Your task to perform on an android device: Empty the shopping cart on ebay. Search for "beats solo 3" on ebay, select the first entry, add it to the cart, then select checkout. Image 0: 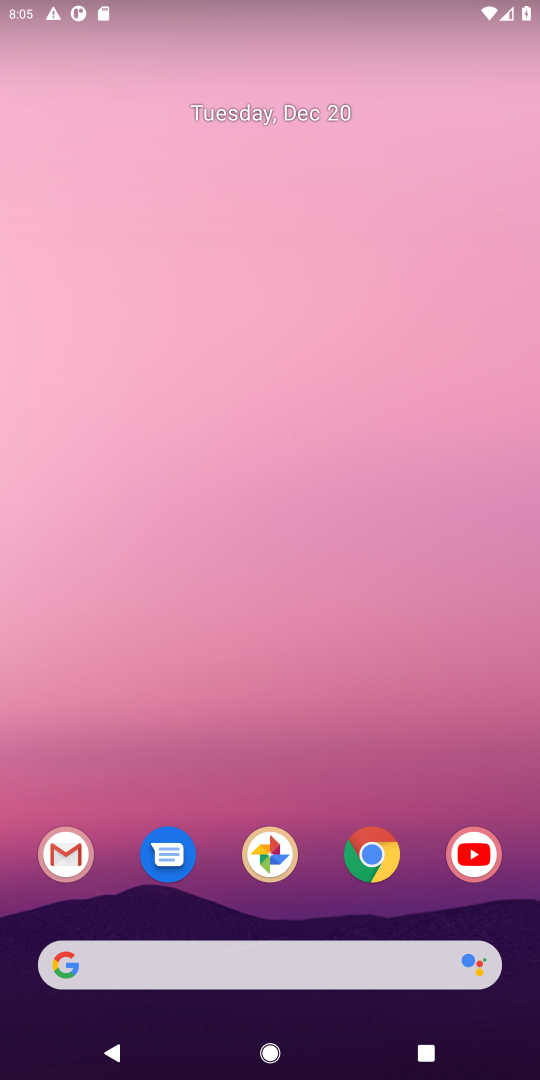
Step 0: click (381, 869)
Your task to perform on an android device: Empty the shopping cart on ebay. Search for "beats solo 3" on ebay, select the first entry, add it to the cart, then select checkout. Image 1: 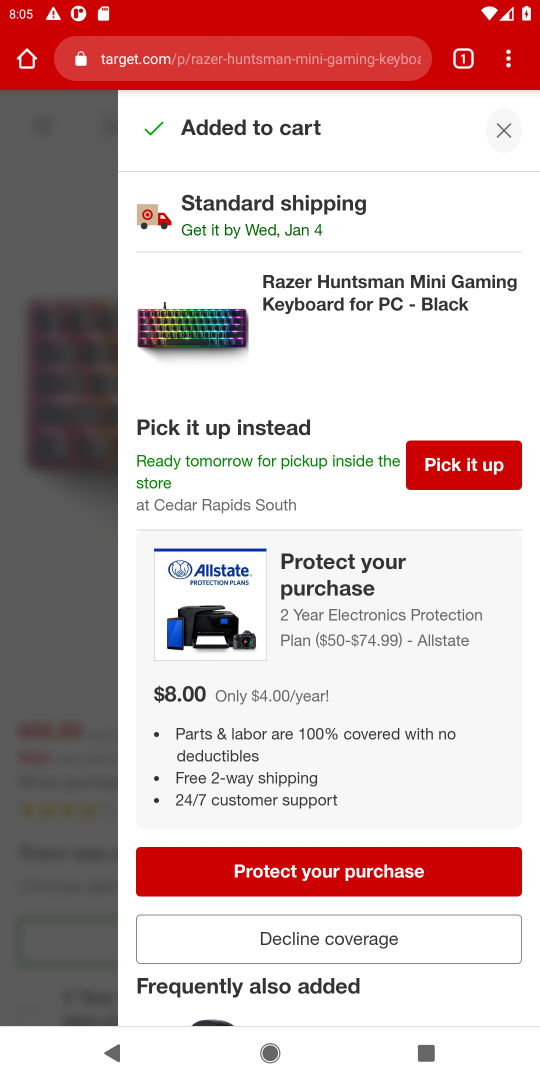
Step 1: click (189, 68)
Your task to perform on an android device: Empty the shopping cart on ebay. Search for "beats solo 3" on ebay, select the first entry, add it to the cart, then select checkout. Image 2: 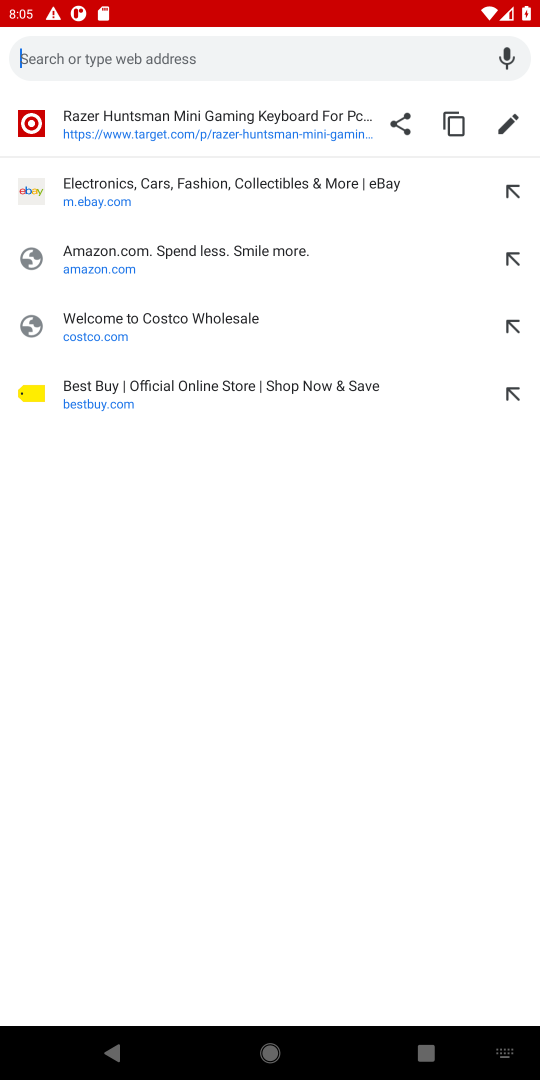
Step 2: click (88, 206)
Your task to perform on an android device: Empty the shopping cart on ebay. Search for "beats solo 3" on ebay, select the first entry, add it to the cart, then select checkout. Image 3: 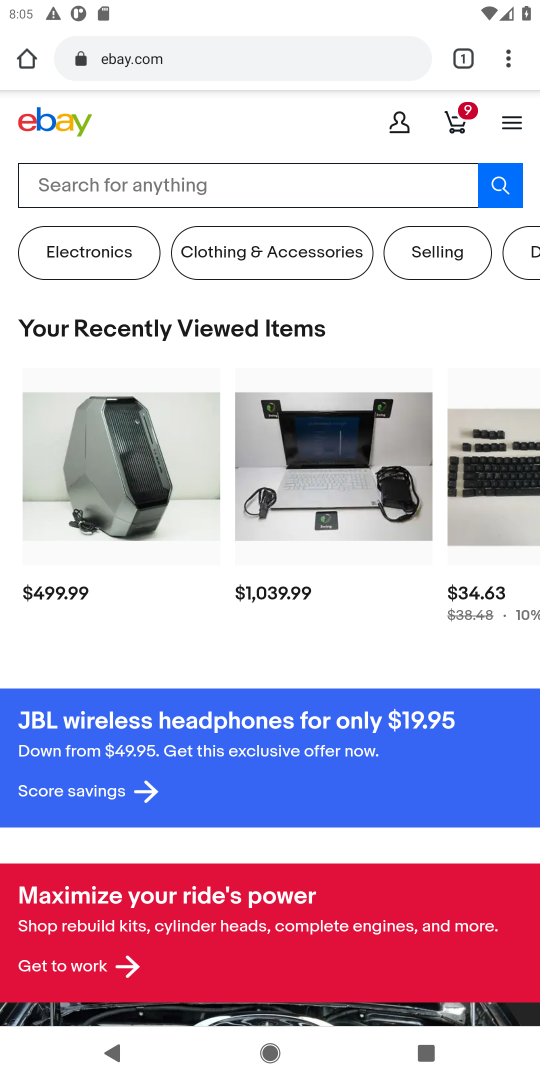
Step 3: click (459, 122)
Your task to perform on an android device: Empty the shopping cart on ebay. Search for "beats solo 3" on ebay, select the first entry, add it to the cart, then select checkout. Image 4: 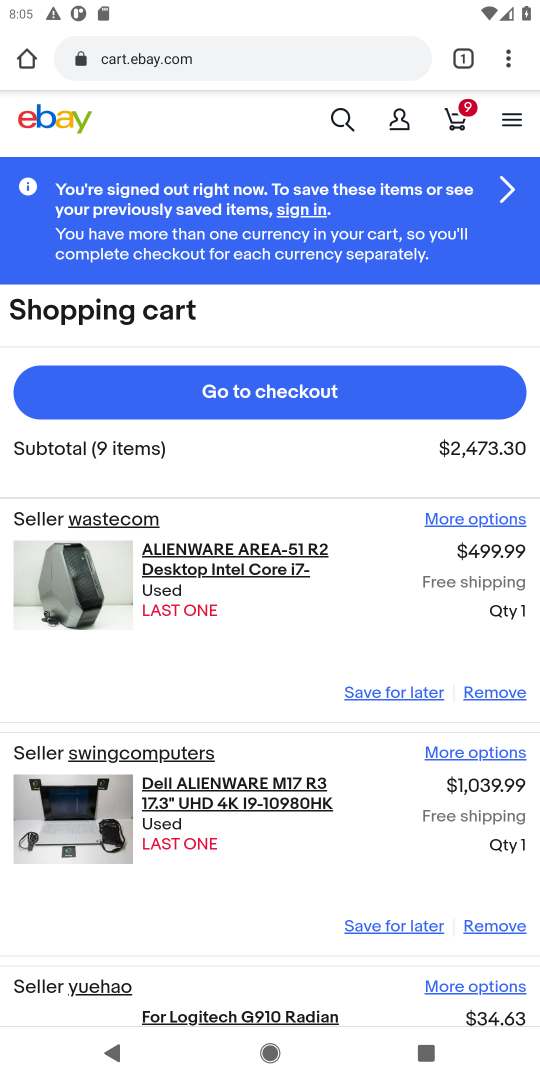
Step 4: click (482, 689)
Your task to perform on an android device: Empty the shopping cart on ebay. Search for "beats solo 3" on ebay, select the first entry, add it to the cart, then select checkout. Image 5: 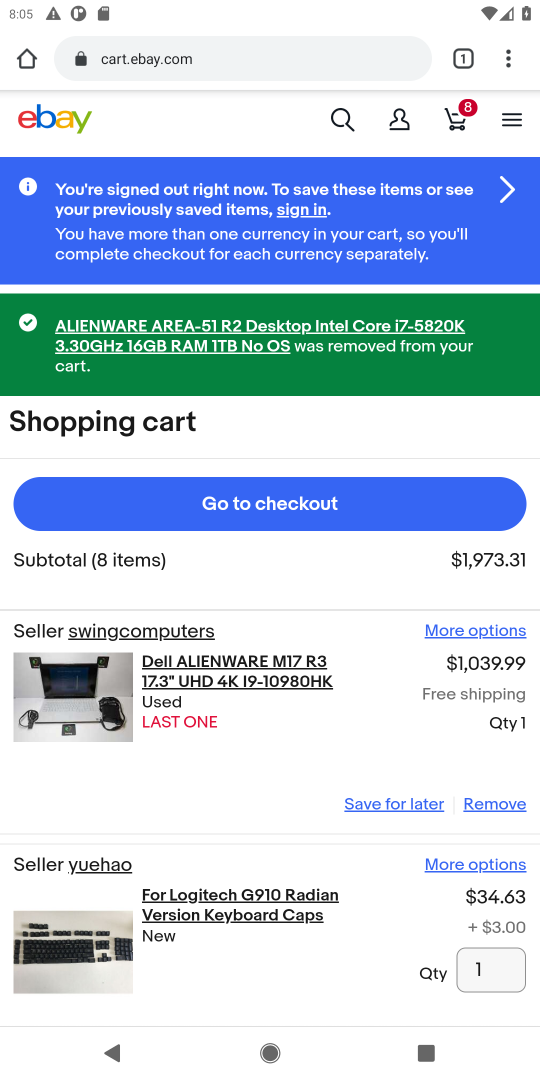
Step 5: click (489, 803)
Your task to perform on an android device: Empty the shopping cart on ebay. Search for "beats solo 3" on ebay, select the first entry, add it to the cart, then select checkout. Image 6: 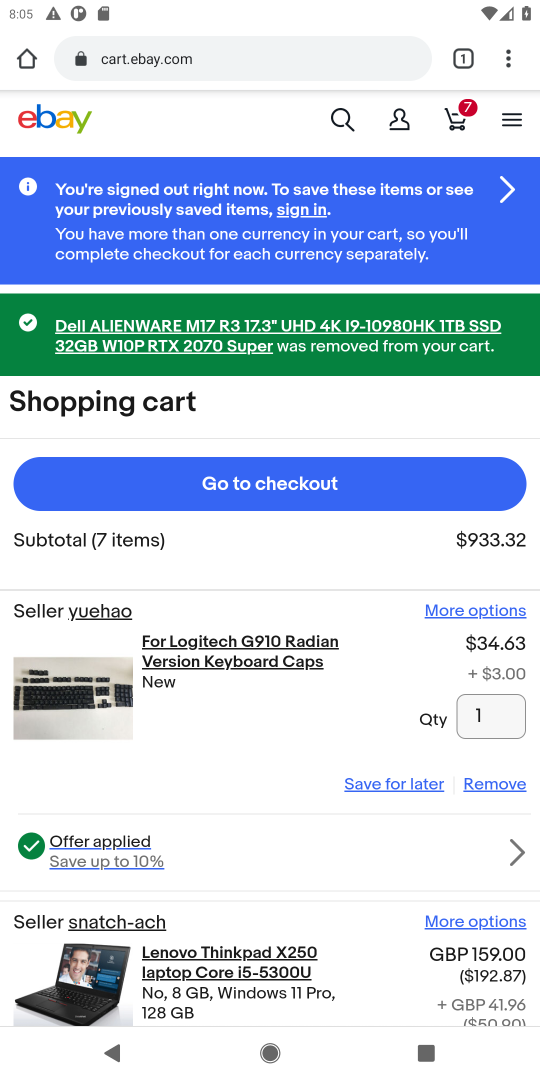
Step 6: click (491, 778)
Your task to perform on an android device: Empty the shopping cart on ebay. Search for "beats solo 3" on ebay, select the first entry, add it to the cart, then select checkout. Image 7: 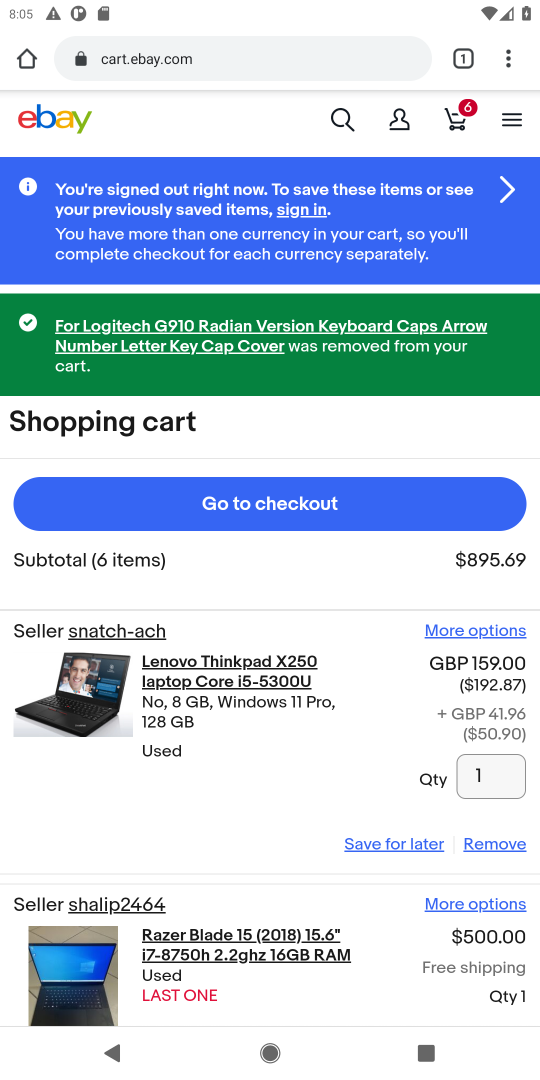
Step 7: click (487, 840)
Your task to perform on an android device: Empty the shopping cart on ebay. Search for "beats solo 3" on ebay, select the first entry, add it to the cart, then select checkout. Image 8: 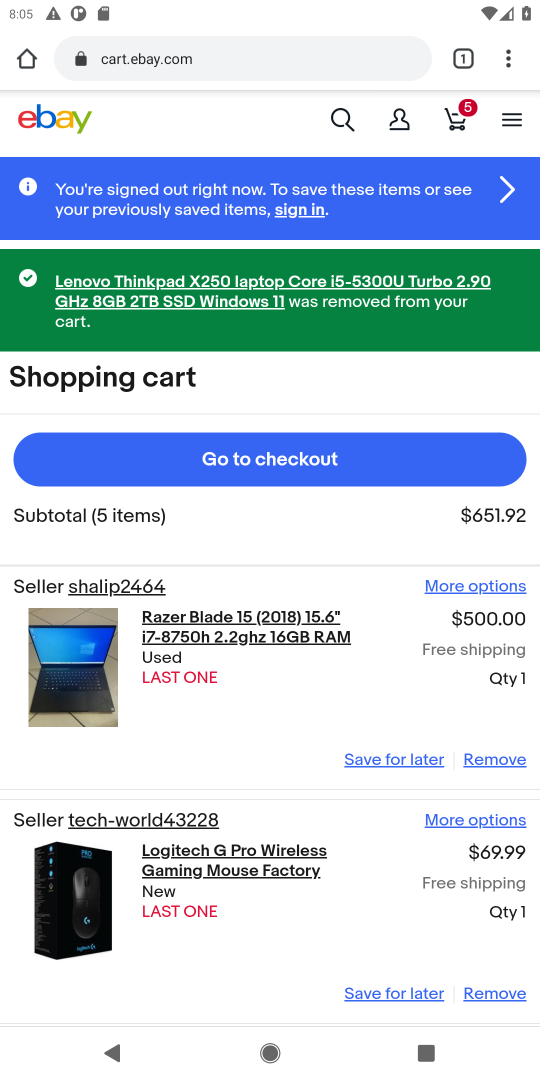
Step 8: click (491, 760)
Your task to perform on an android device: Empty the shopping cart on ebay. Search for "beats solo 3" on ebay, select the first entry, add it to the cart, then select checkout. Image 9: 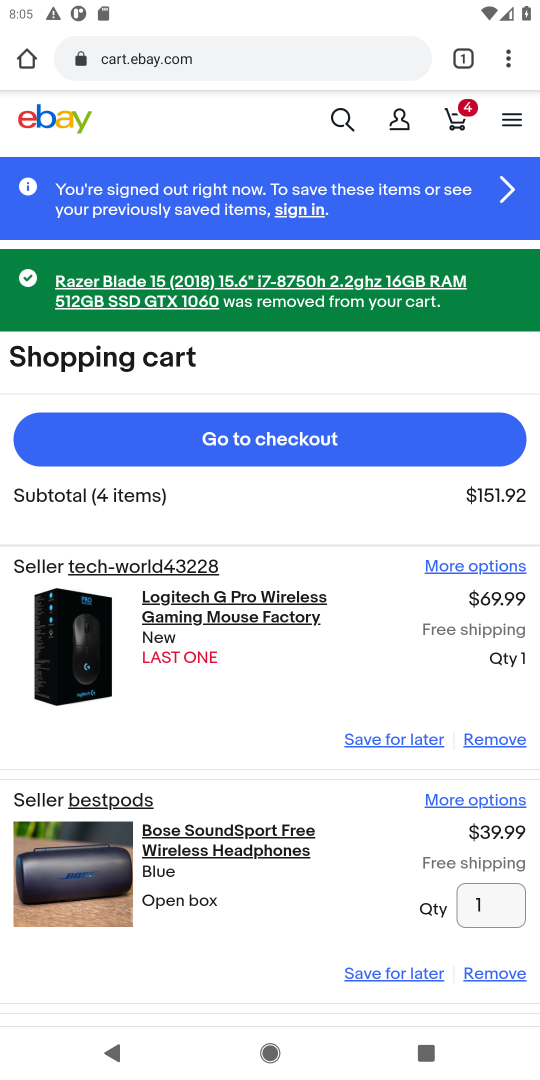
Step 9: click (491, 746)
Your task to perform on an android device: Empty the shopping cart on ebay. Search for "beats solo 3" on ebay, select the first entry, add it to the cart, then select checkout. Image 10: 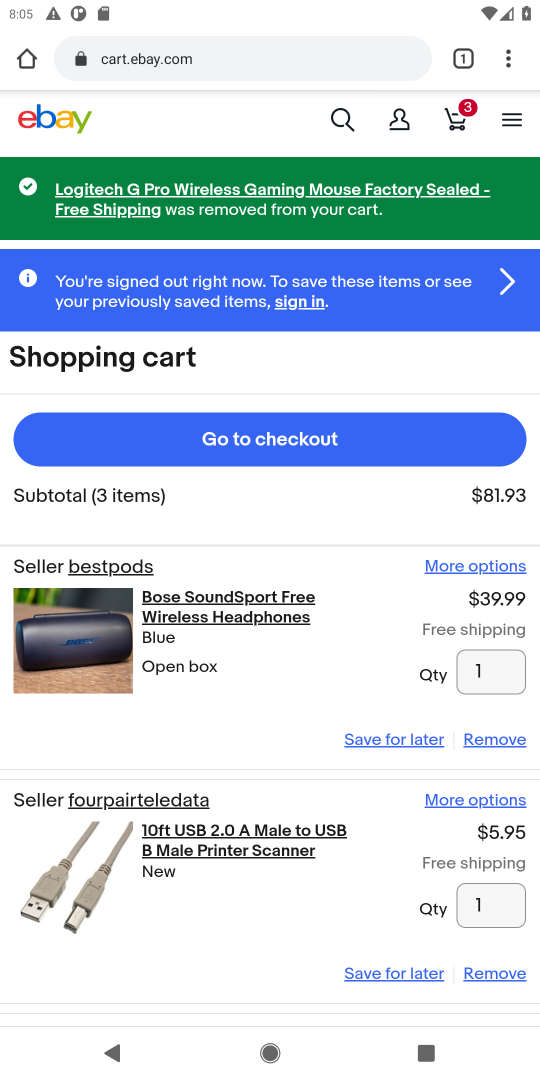
Step 10: click (491, 746)
Your task to perform on an android device: Empty the shopping cart on ebay. Search for "beats solo 3" on ebay, select the first entry, add it to the cart, then select checkout. Image 11: 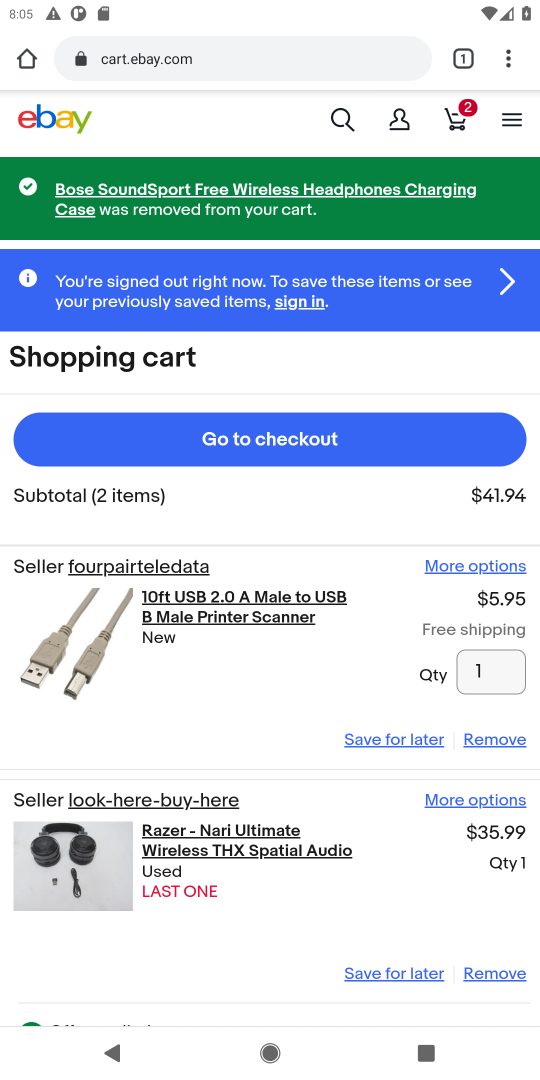
Step 11: click (491, 746)
Your task to perform on an android device: Empty the shopping cart on ebay. Search for "beats solo 3" on ebay, select the first entry, add it to the cart, then select checkout. Image 12: 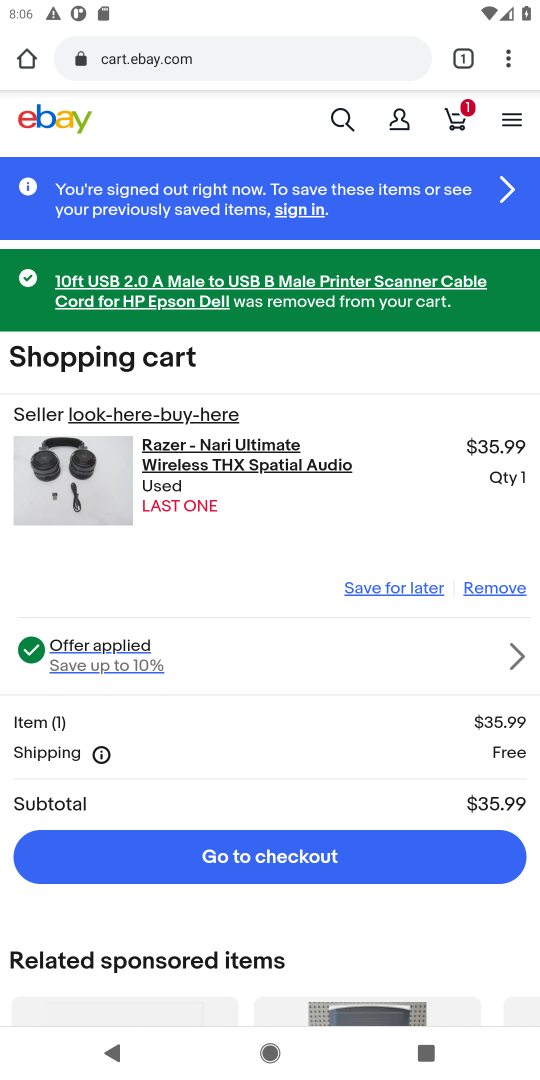
Step 12: click (494, 591)
Your task to perform on an android device: Empty the shopping cart on ebay. Search for "beats solo 3" on ebay, select the first entry, add it to the cart, then select checkout. Image 13: 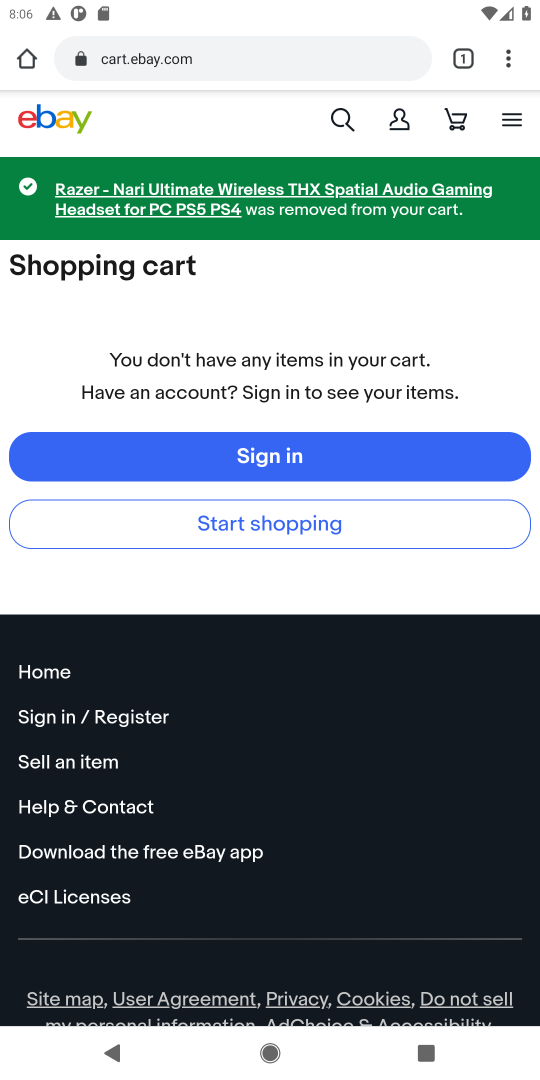
Step 13: click (345, 119)
Your task to perform on an android device: Empty the shopping cart on ebay. Search for "beats solo 3" on ebay, select the first entry, add it to the cart, then select checkout. Image 14: 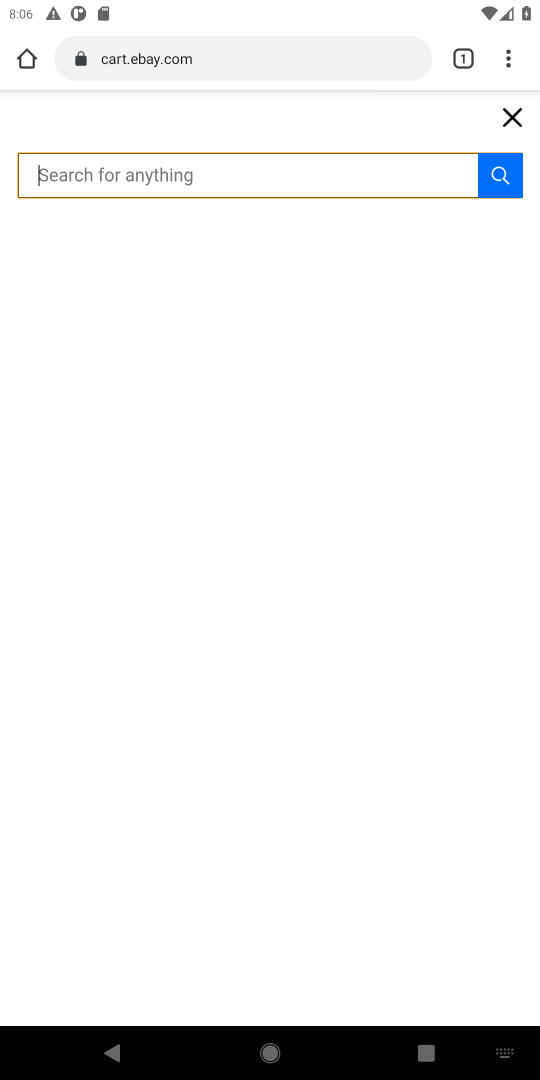
Step 14: type "beats solo 3"
Your task to perform on an android device: Empty the shopping cart on ebay. Search for "beats solo 3" on ebay, select the first entry, add it to the cart, then select checkout. Image 15: 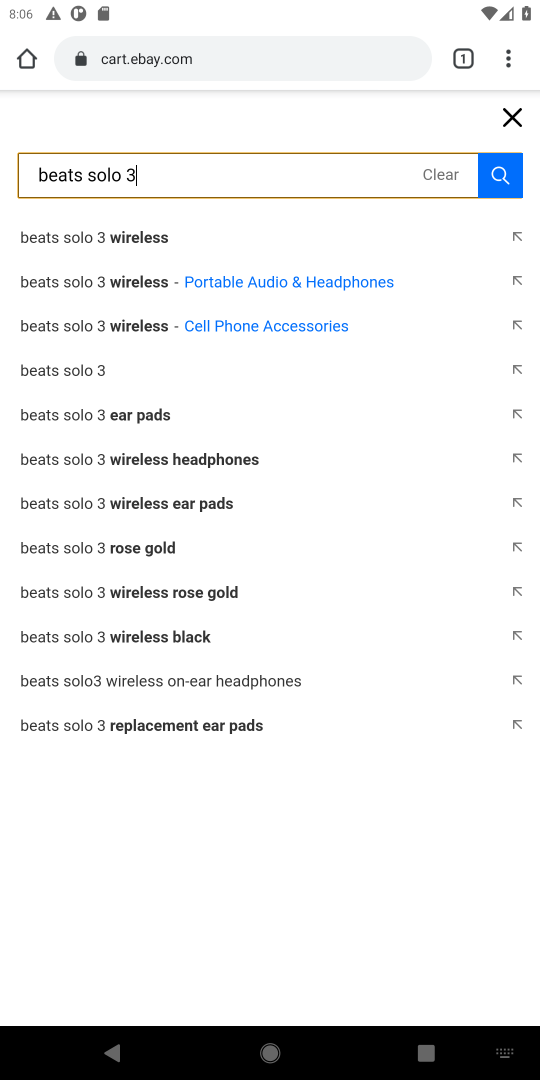
Step 15: click (34, 379)
Your task to perform on an android device: Empty the shopping cart on ebay. Search for "beats solo 3" on ebay, select the first entry, add it to the cart, then select checkout. Image 16: 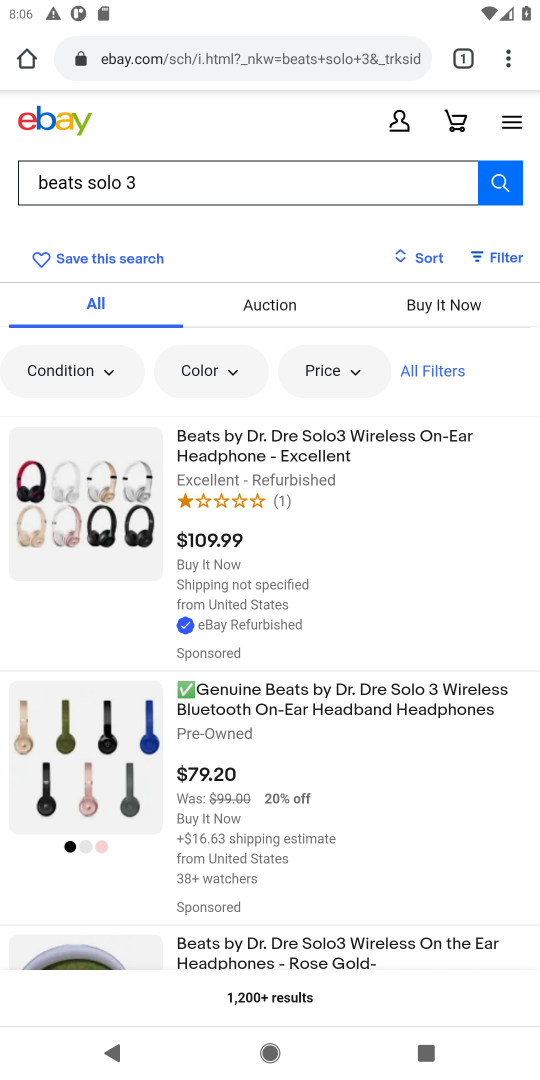
Step 16: click (214, 457)
Your task to perform on an android device: Empty the shopping cart on ebay. Search for "beats solo 3" on ebay, select the first entry, add it to the cart, then select checkout. Image 17: 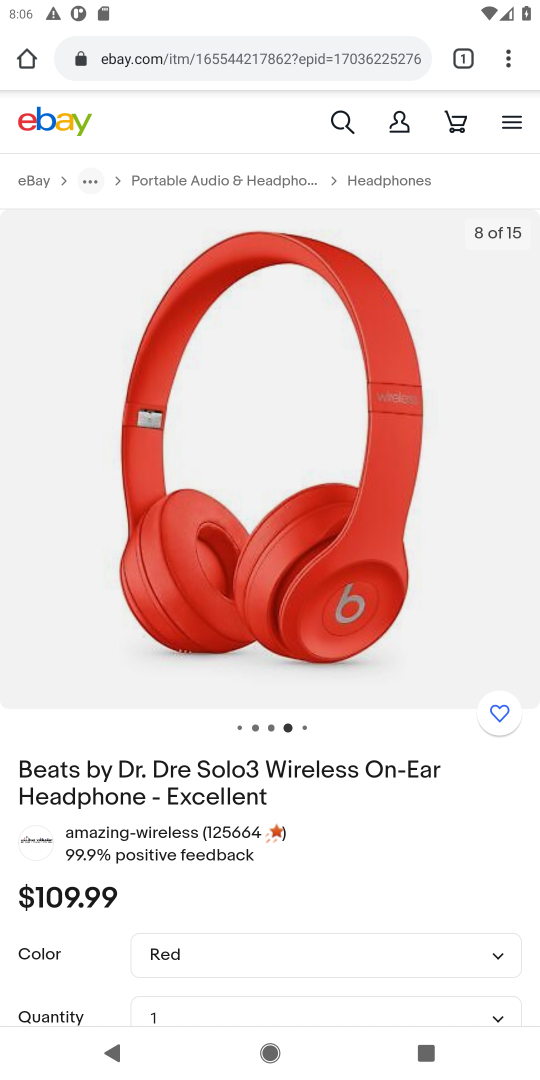
Step 17: drag from (145, 769) to (155, 188)
Your task to perform on an android device: Empty the shopping cart on ebay. Search for "beats solo 3" on ebay, select the first entry, add it to the cart, then select checkout. Image 18: 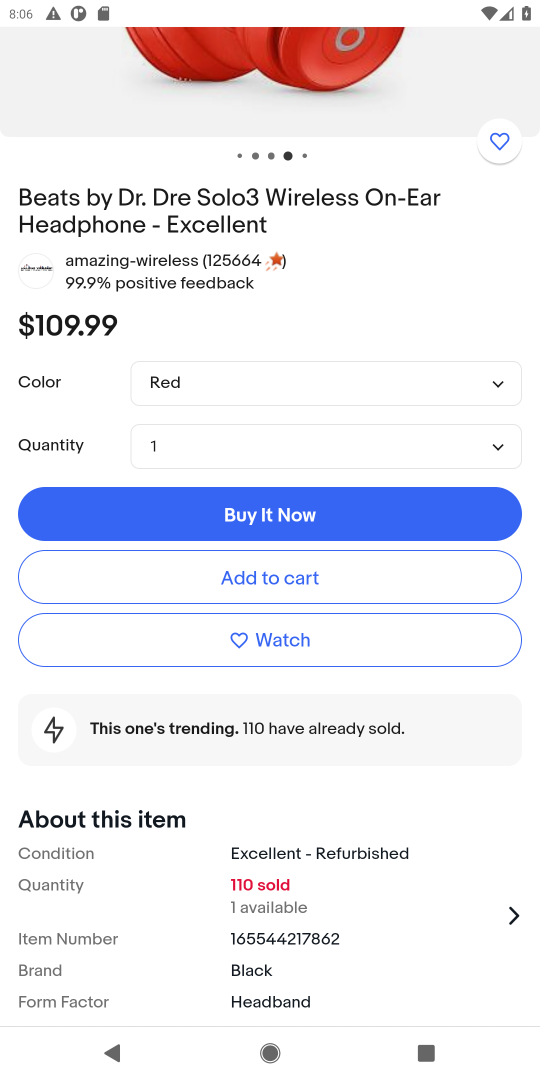
Step 18: click (211, 574)
Your task to perform on an android device: Empty the shopping cart on ebay. Search for "beats solo 3" on ebay, select the first entry, add it to the cart, then select checkout. Image 19: 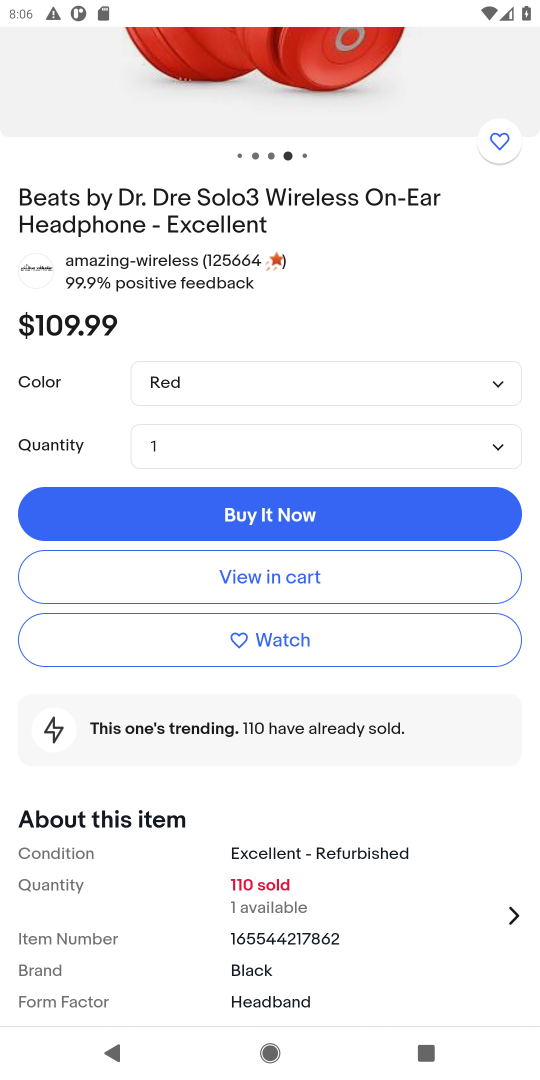
Step 19: click (252, 580)
Your task to perform on an android device: Empty the shopping cart on ebay. Search for "beats solo 3" on ebay, select the first entry, add it to the cart, then select checkout. Image 20: 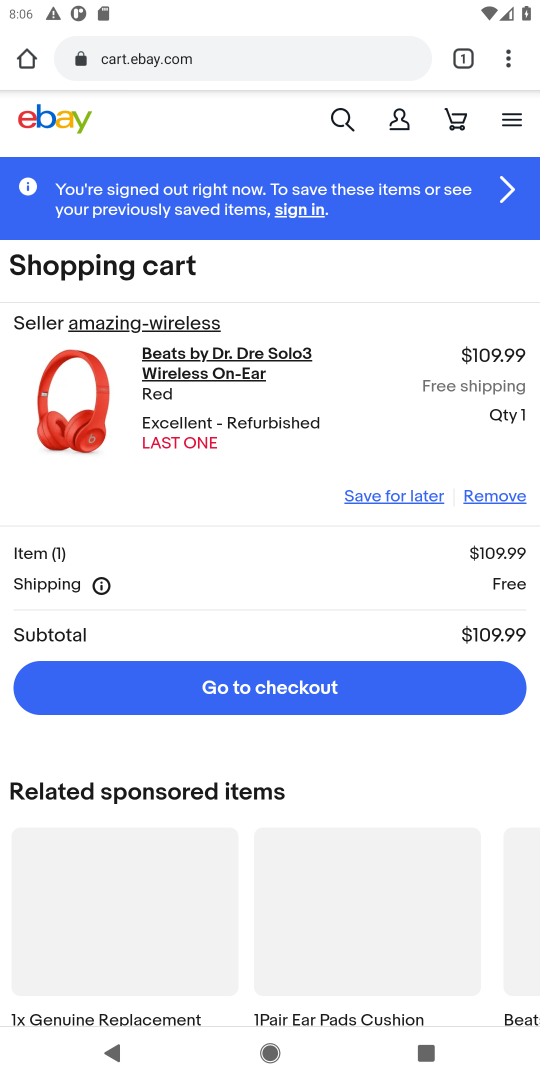
Step 20: click (254, 676)
Your task to perform on an android device: Empty the shopping cart on ebay. Search for "beats solo 3" on ebay, select the first entry, add it to the cart, then select checkout. Image 21: 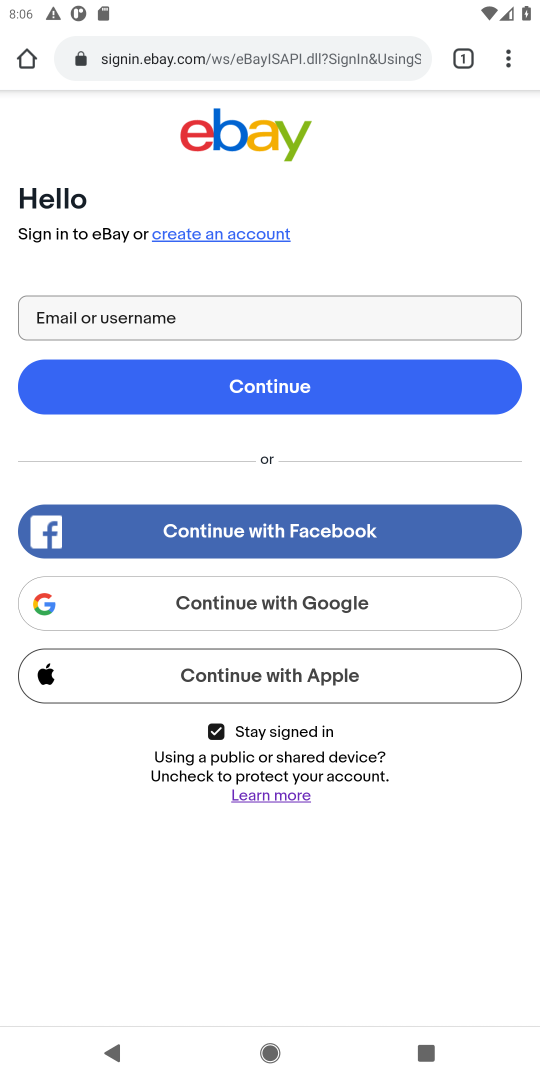
Step 21: task complete